Your task to perform on an android device: Do I have any events this weekend? Image 0: 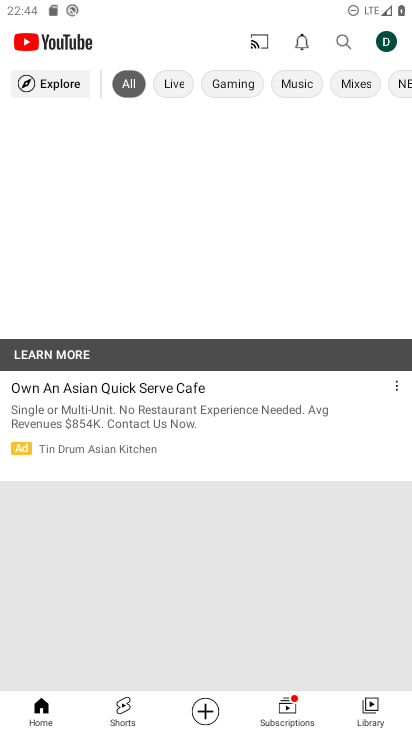
Step 0: press home button
Your task to perform on an android device: Do I have any events this weekend? Image 1: 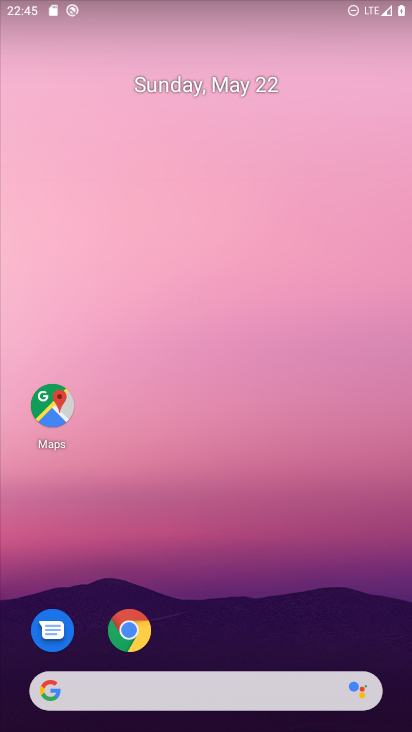
Step 1: drag from (149, 693) to (268, 160)
Your task to perform on an android device: Do I have any events this weekend? Image 2: 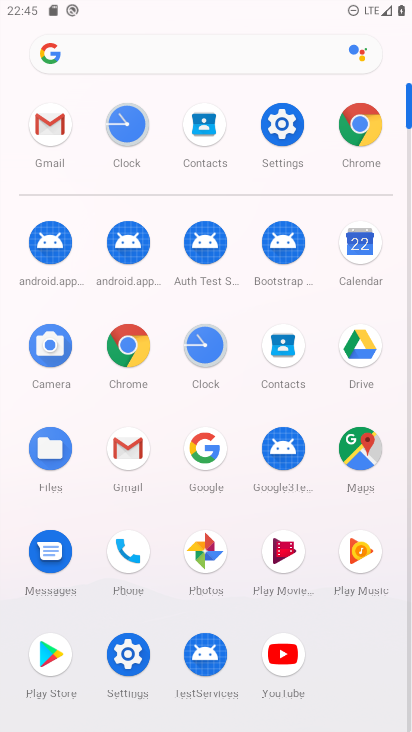
Step 2: click (370, 247)
Your task to perform on an android device: Do I have any events this weekend? Image 3: 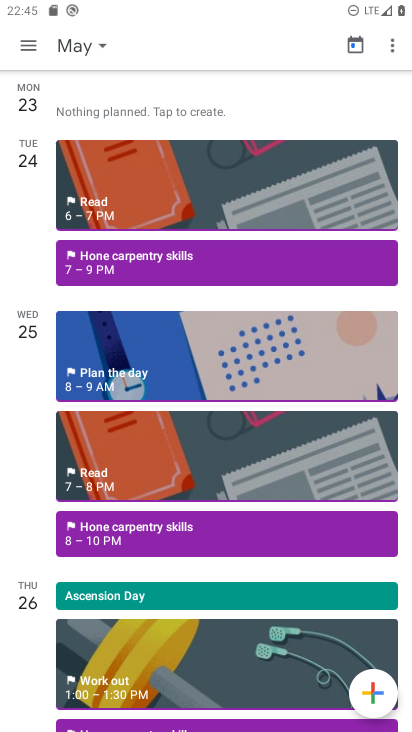
Step 3: click (76, 43)
Your task to perform on an android device: Do I have any events this weekend? Image 4: 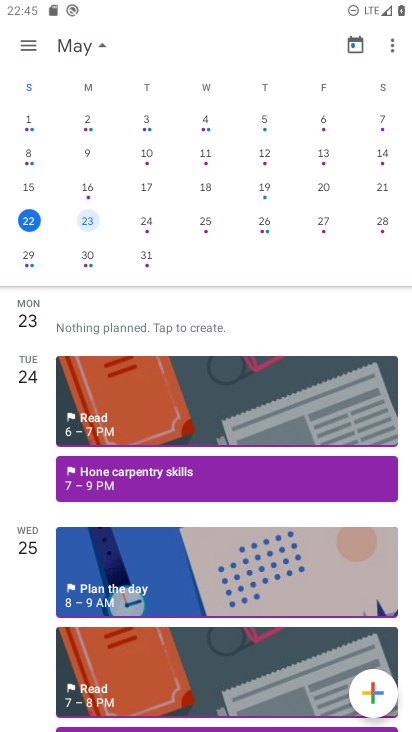
Step 4: click (386, 219)
Your task to perform on an android device: Do I have any events this weekend? Image 5: 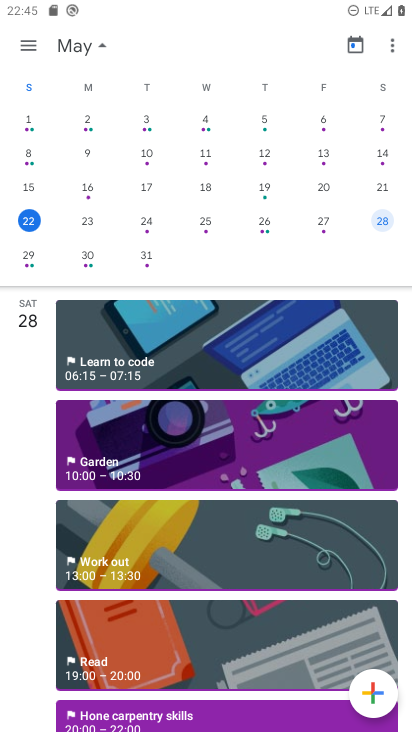
Step 5: click (26, 48)
Your task to perform on an android device: Do I have any events this weekend? Image 6: 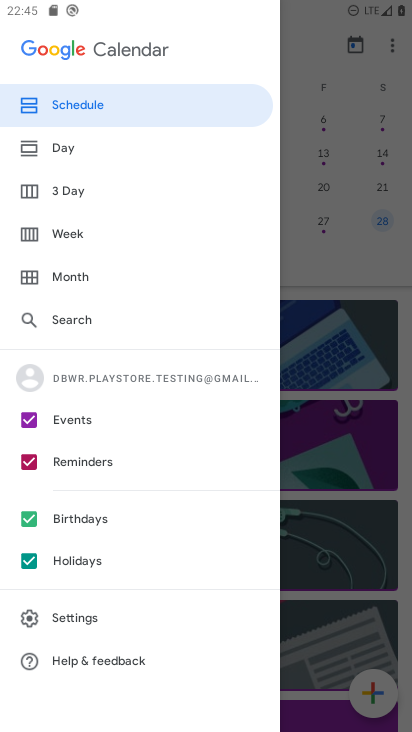
Step 6: click (69, 147)
Your task to perform on an android device: Do I have any events this weekend? Image 7: 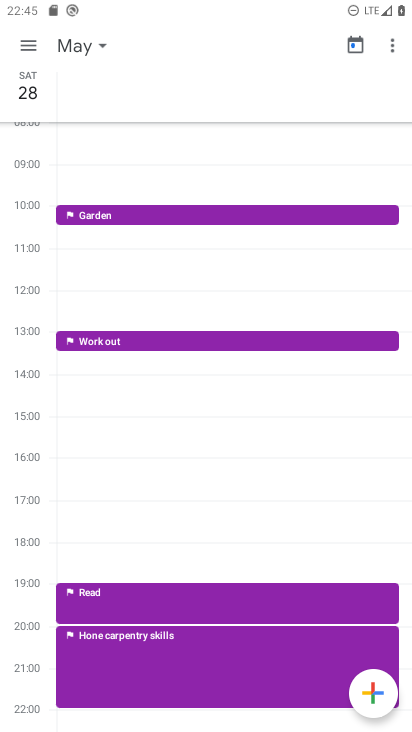
Step 7: click (31, 47)
Your task to perform on an android device: Do I have any events this weekend? Image 8: 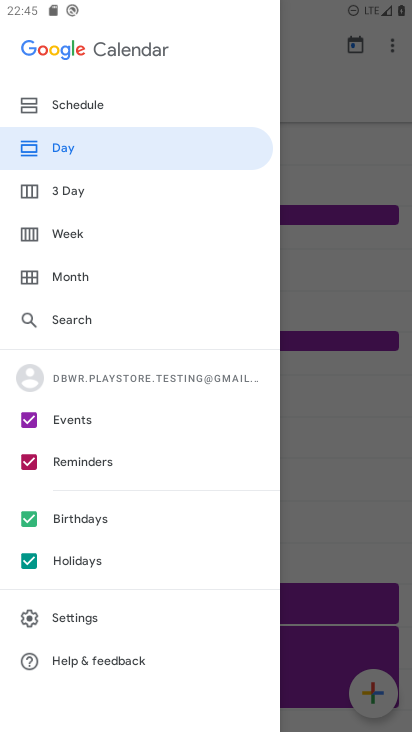
Step 8: click (84, 104)
Your task to perform on an android device: Do I have any events this weekend? Image 9: 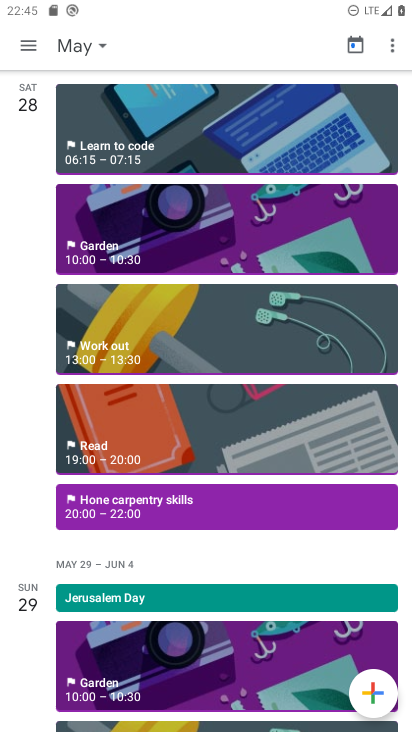
Step 9: click (208, 236)
Your task to perform on an android device: Do I have any events this weekend? Image 10: 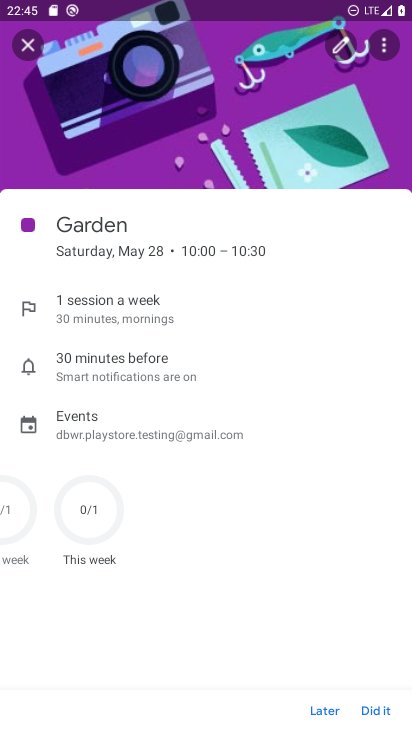
Step 10: task complete